Your task to perform on an android device: open the mobile data screen to see how much data has been used Image 0: 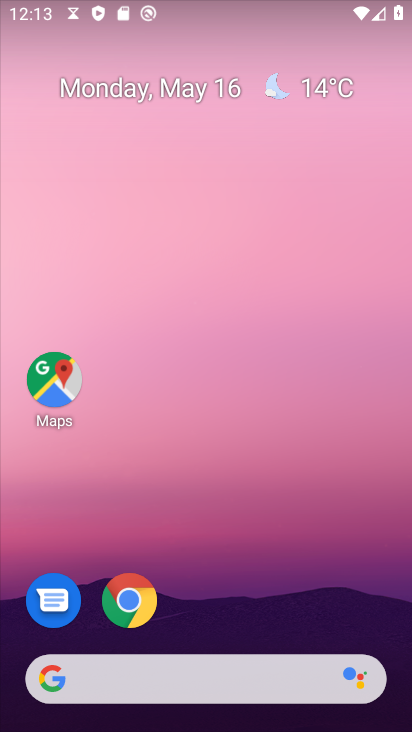
Step 0: drag from (218, 494) to (250, 42)
Your task to perform on an android device: open the mobile data screen to see how much data has been used Image 1: 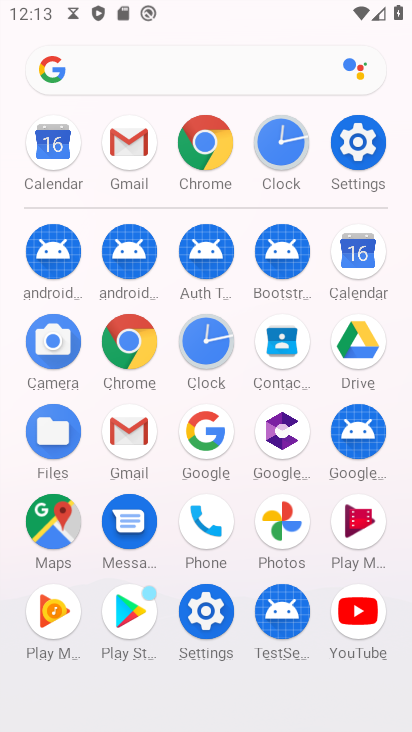
Step 1: drag from (20, 533) to (12, 284)
Your task to perform on an android device: open the mobile data screen to see how much data has been used Image 2: 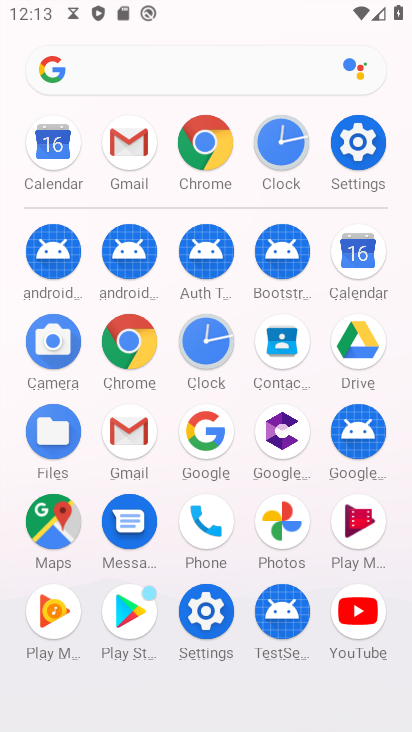
Step 2: drag from (7, 540) to (15, 270)
Your task to perform on an android device: open the mobile data screen to see how much data has been used Image 3: 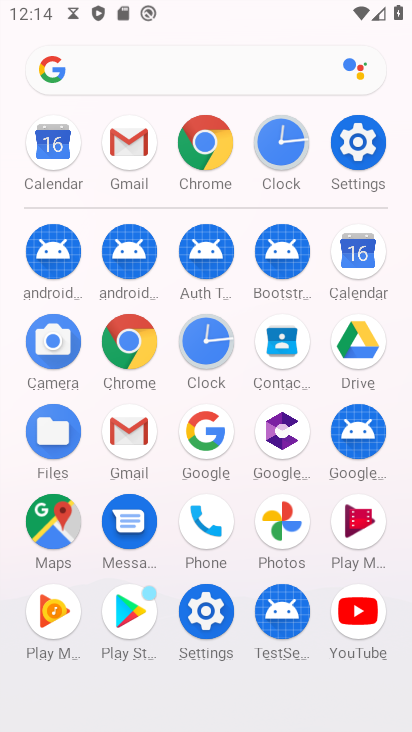
Step 3: click (208, 609)
Your task to perform on an android device: open the mobile data screen to see how much data has been used Image 4: 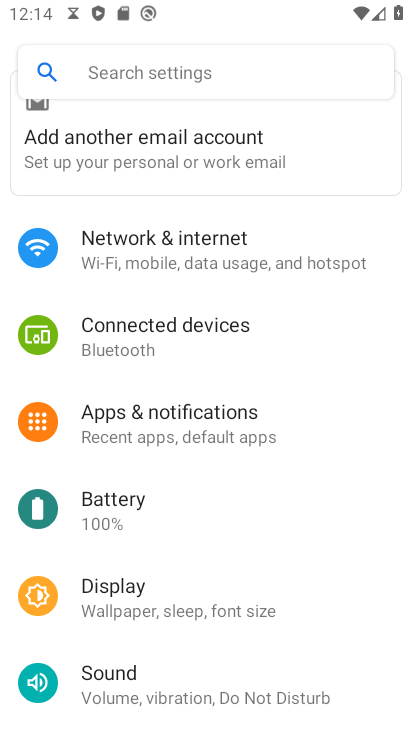
Step 4: drag from (250, 552) to (272, 255)
Your task to perform on an android device: open the mobile data screen to see how much data has been used Image 5: 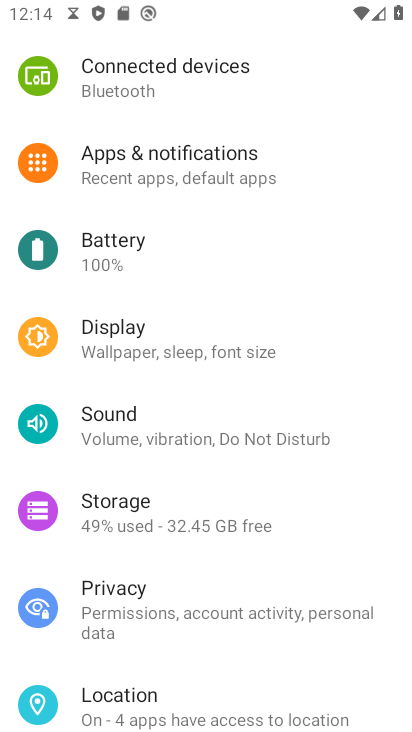
Step 5: drag from (268, 132) to (278, 608)
Your task to perform on an android device: open the mobile data screen to see how much data has been used Image 6: 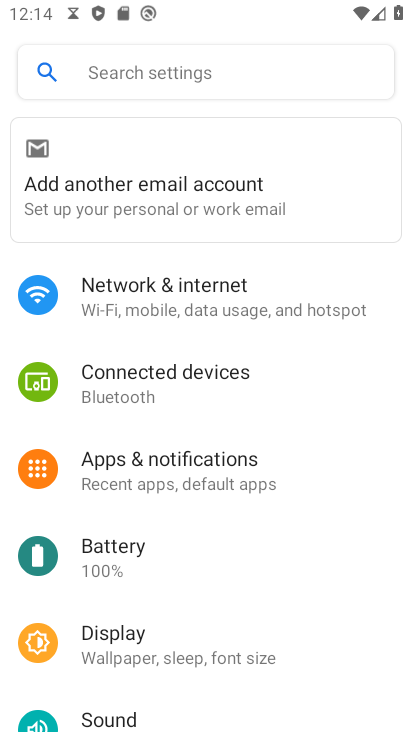
Step 6: click (215, 283)
Your task to perform on an android device: open the mobile data screen to see how much data has been used Image 7: 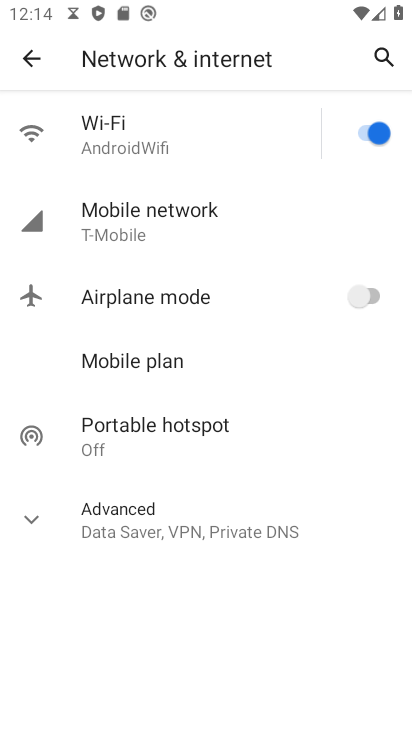
Step 7: click (181, 225)
Your task to perform on an android device: open the mobile data screen to see how much data has been used Image 8: 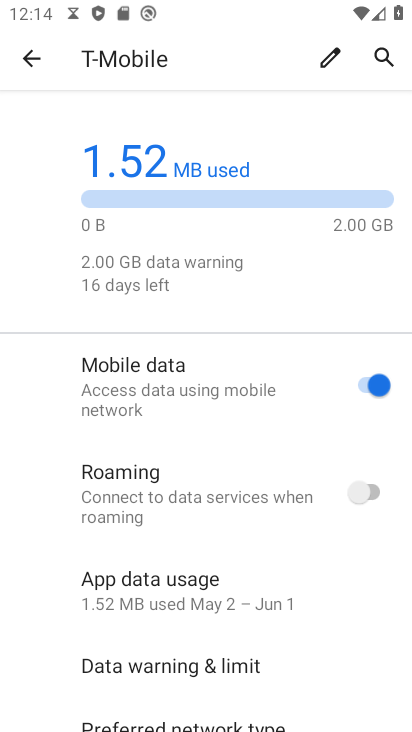
Step 8: task complete